Your task to perform on an android device: Open Youtube and go to the subscriptions tab Image 0: 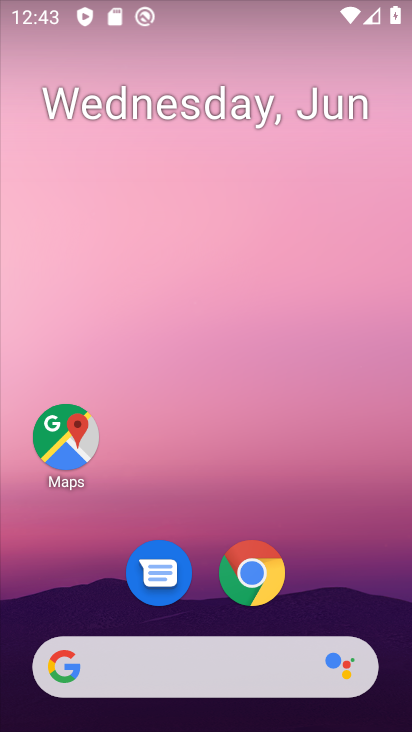
Step 0: drag from (325, 599) to (345, 115)
Your task to perform on an android device: Open Youtube and go to the subscriptions tab Image 1: 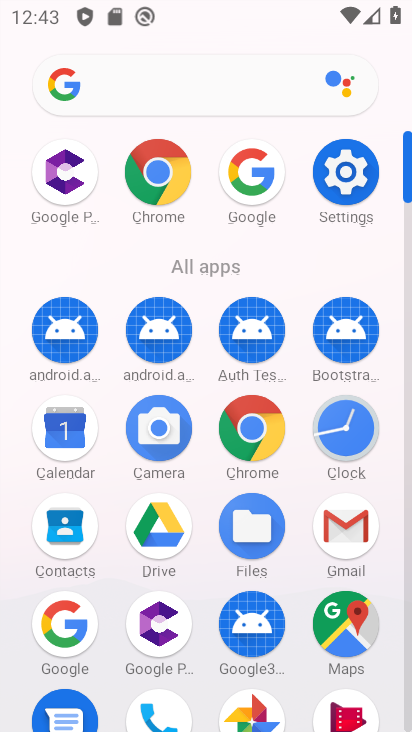
Step 1: drag from (206, 629) to (208, 345)
Your task to perform on an android device: Open Youtube and go to the subscriptions tab Image 2: 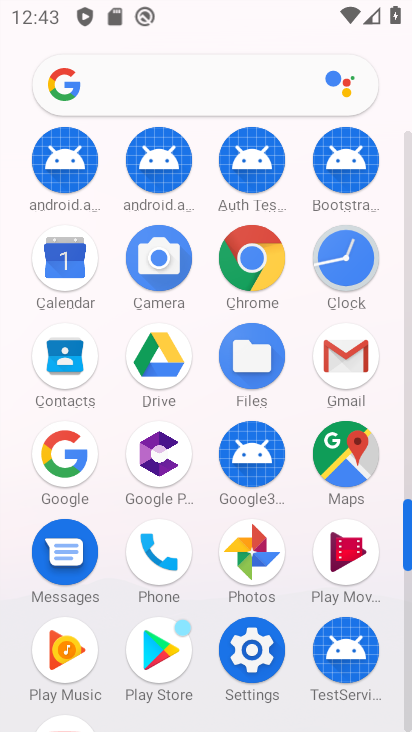
Step 2: drag from (159, 450) to (133, 721)
Your task to perform on an android device: Open Youtube and go to the subscriptions tab Image 3: 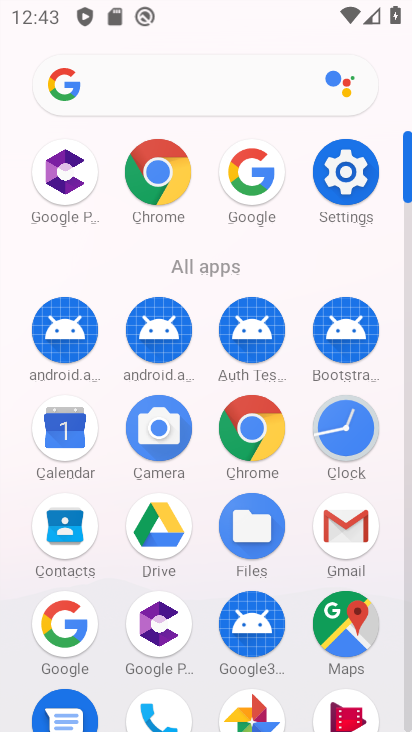
Step 3: drag from (187, 646) to (208, 308)
Your task to perform on an android device: Open Youtube and go to the subscriptions tab Image 4: 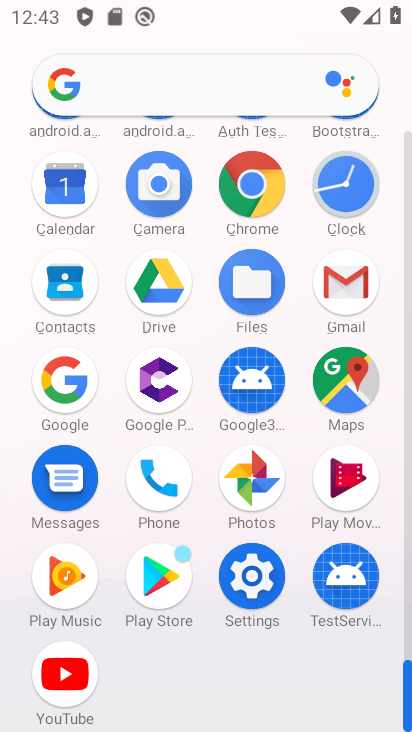
Step 4: click (72, 699)
Your task to perform on an android device: Open Youtube and go to the subscriptions tab Image 5: 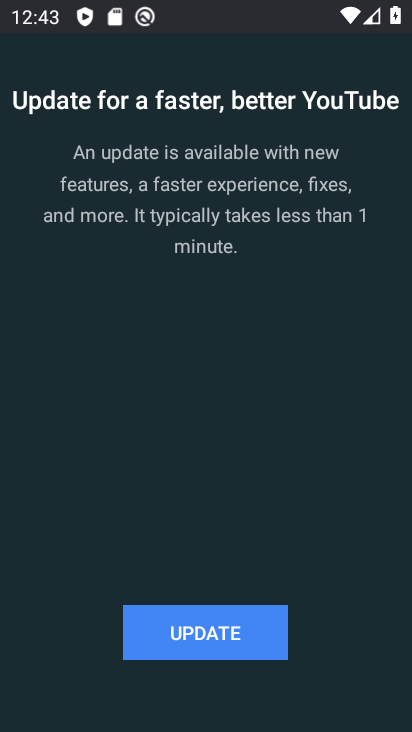
Step 5: click (170, 651)
Your task to perform on an android device: Open Youtube and go to the subscriptions tab Image 6: 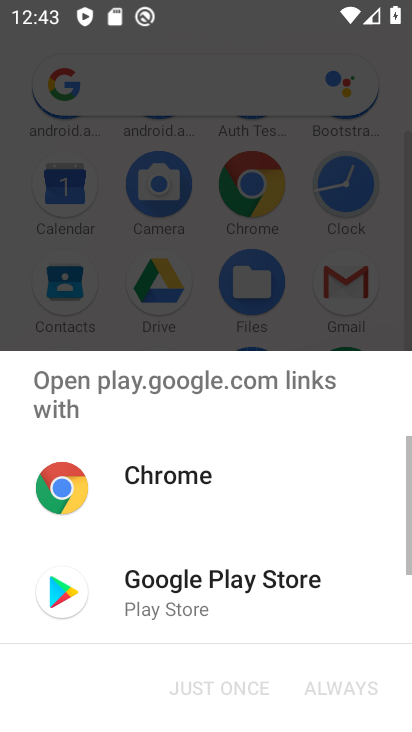
Step 6: click (170, 594)
Your task to perform on an android device: Open Youtube and go to the subscriptions tab Image 7: 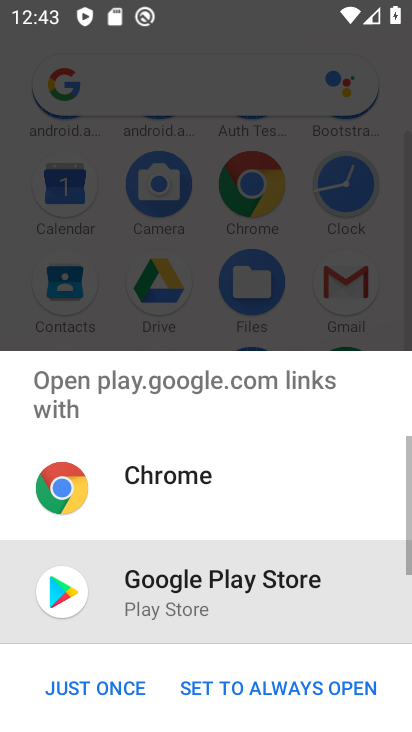
Step 7: click (119, 691)
Your task to perform on an android device: Open Youtube and go to the subscriptions tab Image 8: 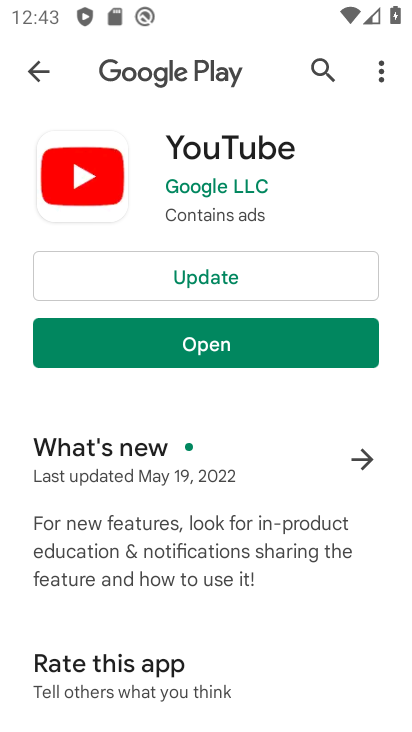
Step 8: click (224, 265)
Your task to perform on an android device: Open Youtube and go to the subscriptions tab Image 9: 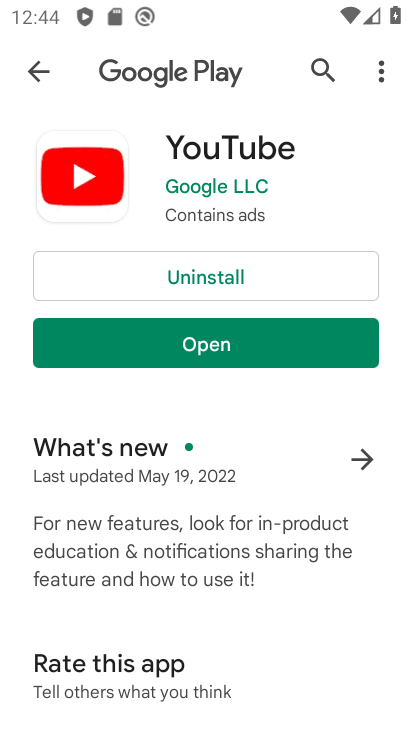
Step 9: click (318, 359)
Your task to perform on an android device: Open Youtube and go to the subscriptions tab Image 10: 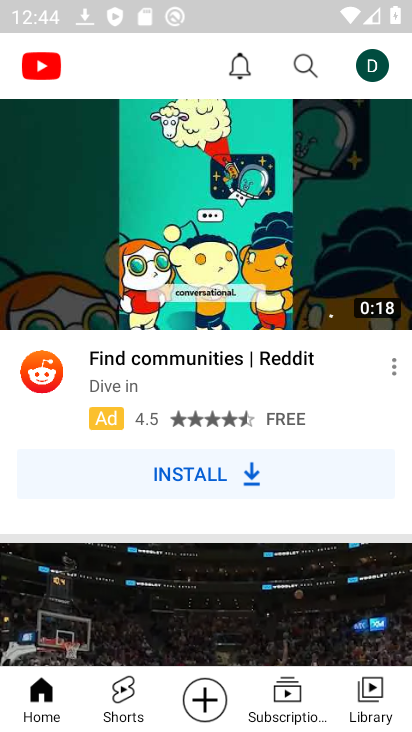
Step 10: drag from (280, 519) to (274, 292)
Your task to perform on an android device: Open Youtube and go to the subscriptions tab Image 11: 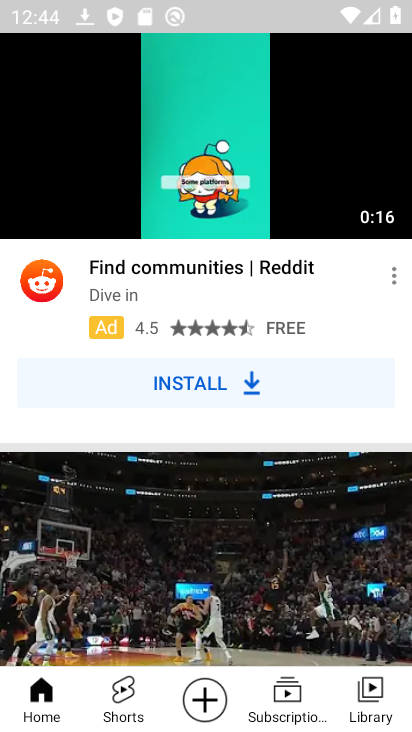
Step 11: click (277, 710)
Your task to perform on an android device: Open Youtube and go to the subscriptions tab Image 12: 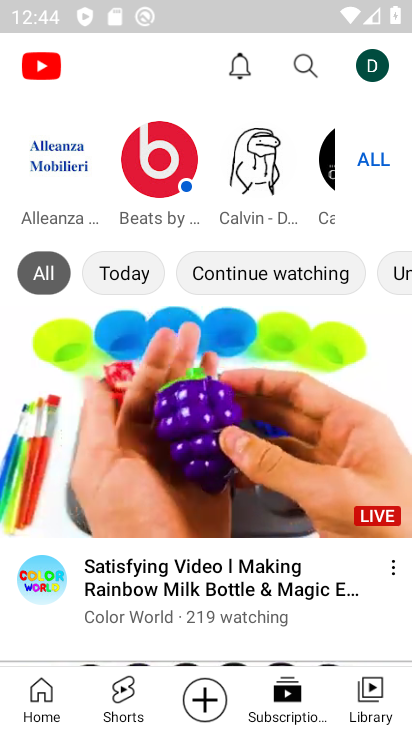
Step 12: task complete